Your task to perform on an android device: Go to Yahoo.com Image 0: 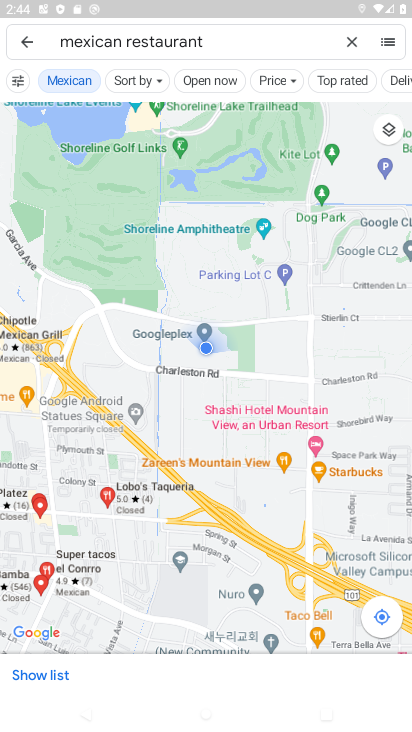
Step 0: press home button
Your task to perform on an android device: Go to Yahoo.com Image 1: 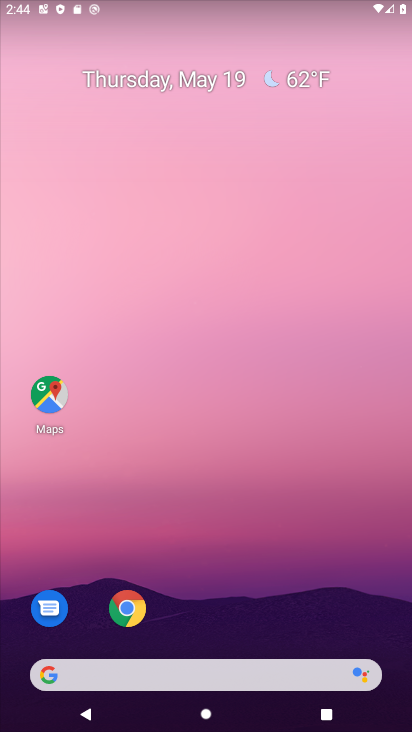
Step 1: drag from (313, 610) to (228, 28)
Your task to perform on an android device: Go to Yahoo.com Image 2: 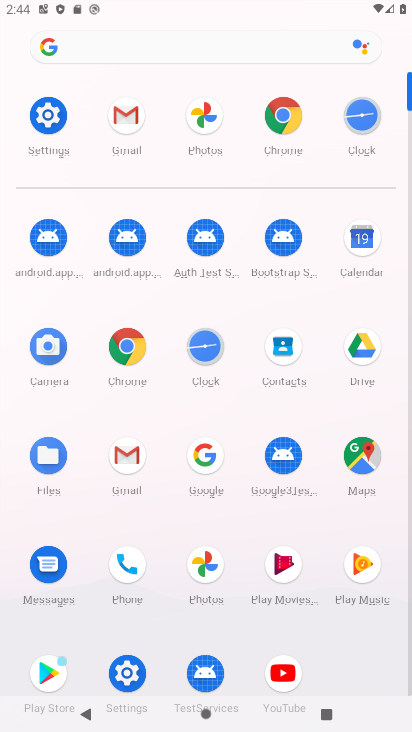
Step 2: click (30, 140)
Your task to perform on an android device: Go to Yahoo.com Image 3: 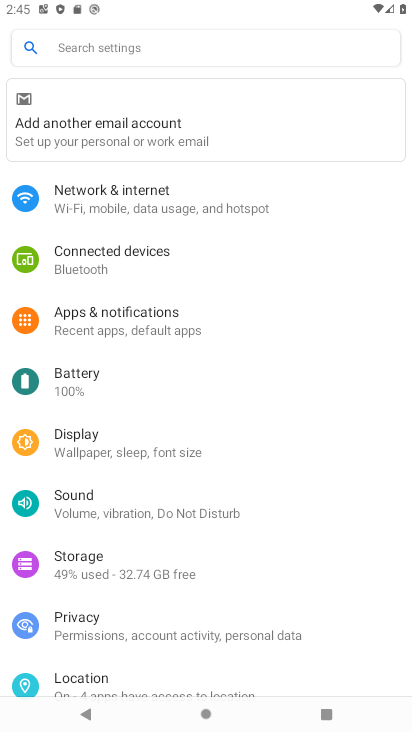
Step 3: press home button
Your task to perform on an android device: Go to Yahoo.com Image 4: 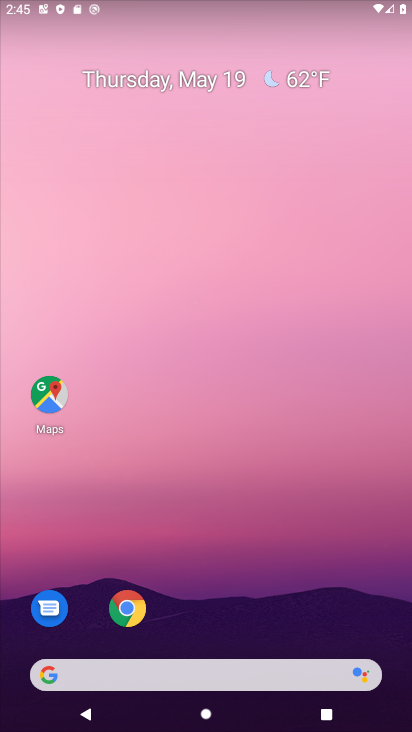
Step 4: click (128, 596)
Your task to perform on an android device: Go to Yahoo.com Image 5: 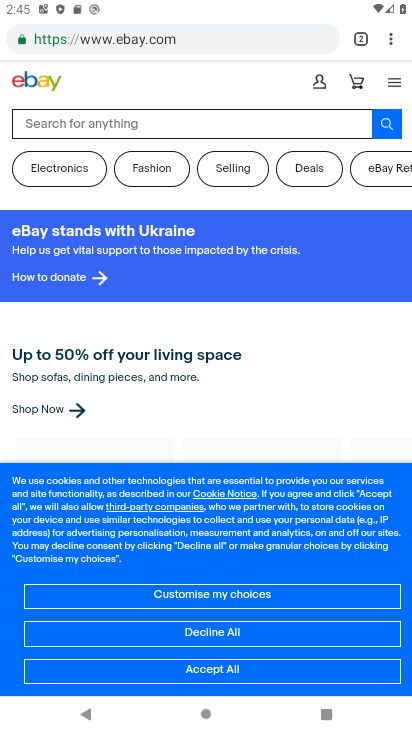
Step 5: click (210, 44)
Your task to perform on an android device: Go to Yahoo.com Image 6: 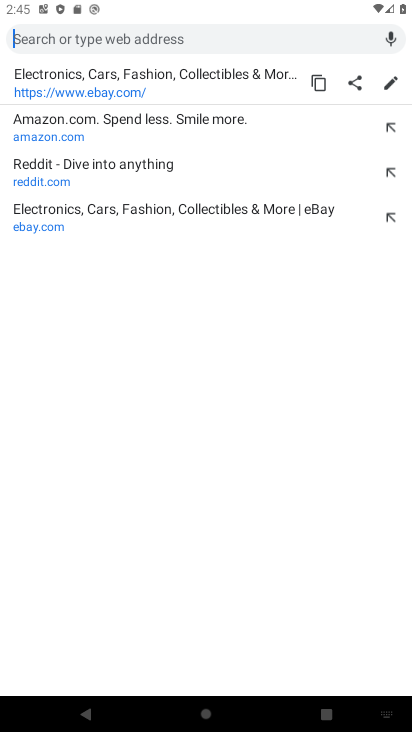
Step 6: type "yahoo.com"
Your task to perform on an android device: Go to Yahoo.com Image 7: 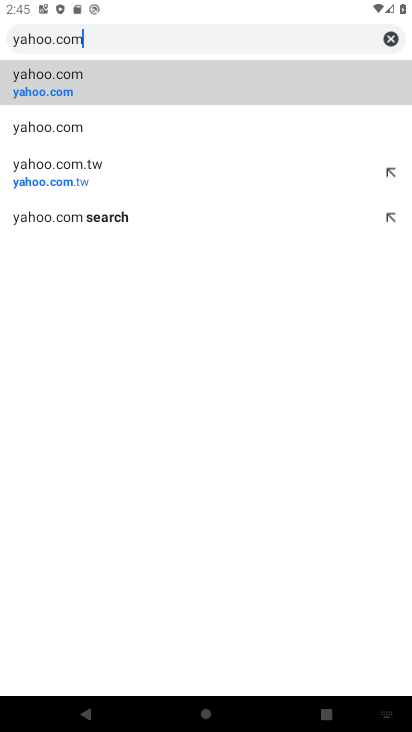
Step 7: click (86, 85)
Your task to perform on an android device: Go to Yahoo.com Image 8: 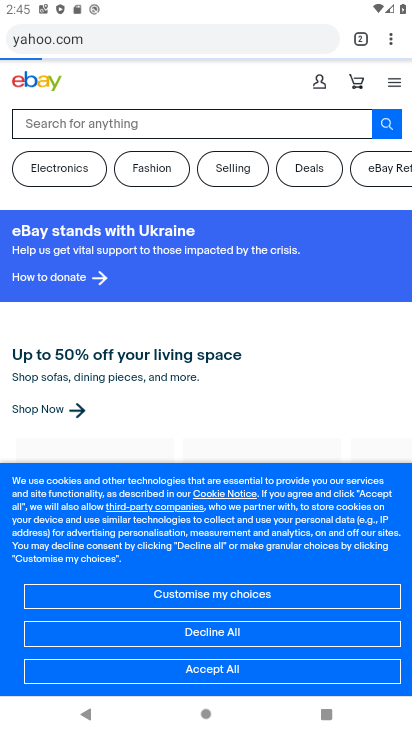
Step 8: task complete